Your task to perform on an android device: Open Chrome and go to settings Image 0: 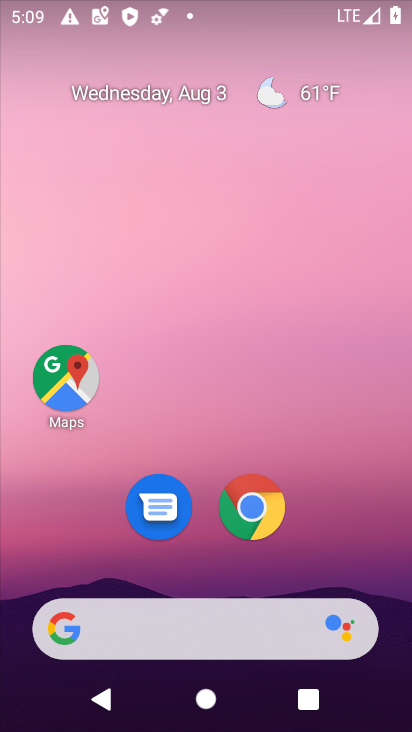
Step 0: drag from (360, 496) to (285, 8)
Your task to perform on an android device: Open Chrome and go to settings Image 1: 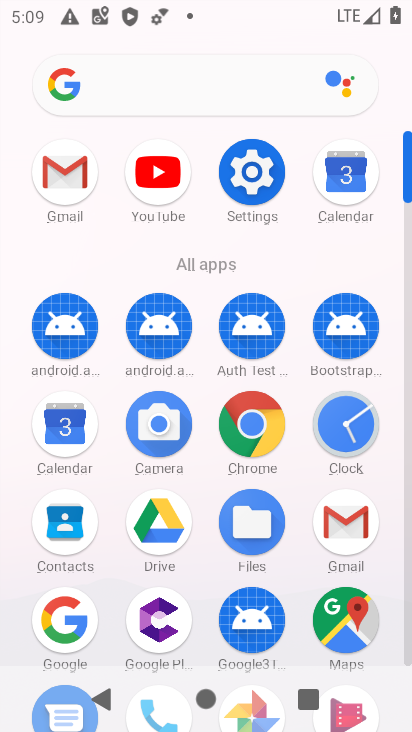
Step 1: click (250, 420)
Your task to perform on an android device: Open Chrome and go to settings Image 2: 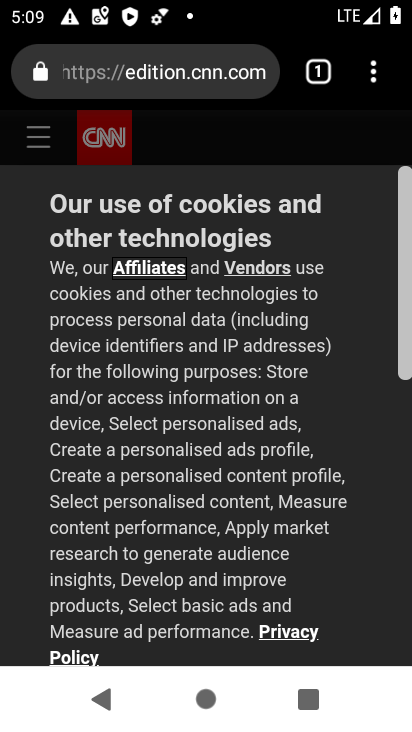
Step 2: task complete